Your task to perform on an android device: What's the weather going to be tomorrow? Image 0: 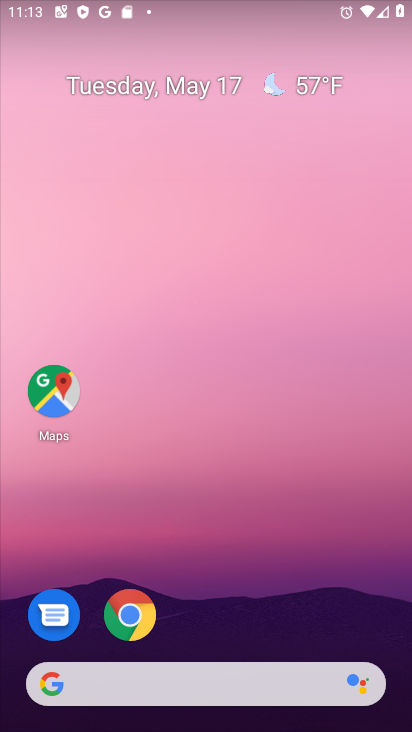
Step 0: drag from (290, 620) to (290, 78)
Your task to perform on an android device: What's the weather going to be tomorrow? Image 1: 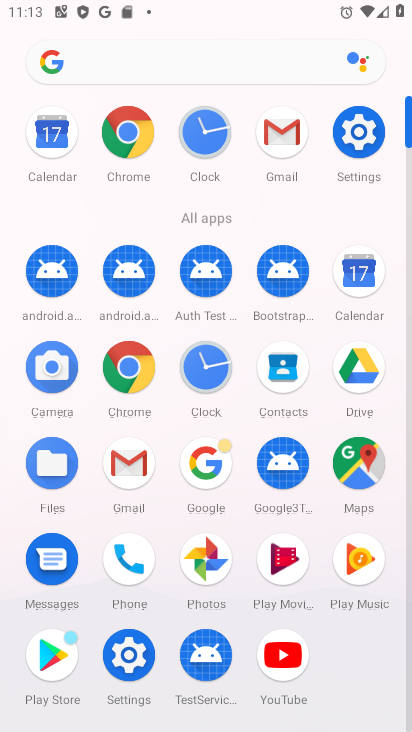
Step 1: press home button
Your task to perform on an android device: What's the weather going to be tomorrow? Image 2: 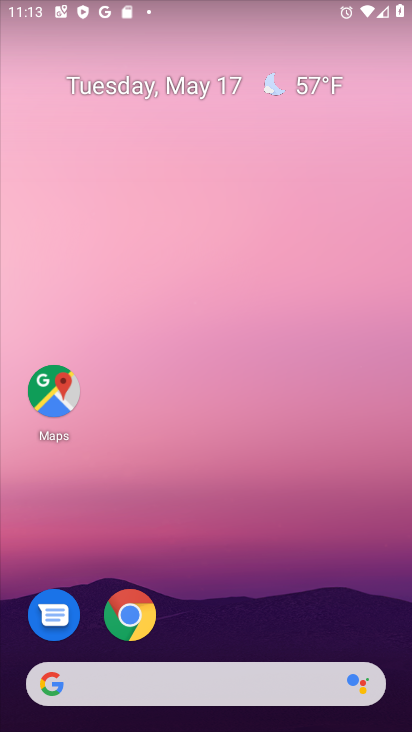
Step 2: click (313, 95)
Your task to perform on an android device: What's the weather going to be tomorrow? Image 3: 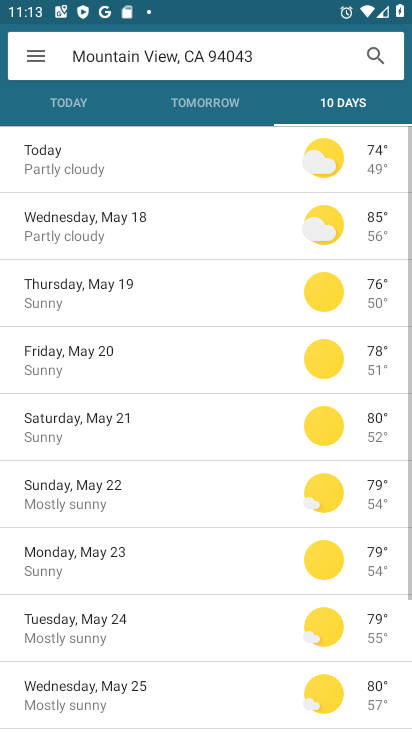
Step 3: click (209, 101)
Your task to perform on an android device: What's the weather going to be tomorrow? Image 4: 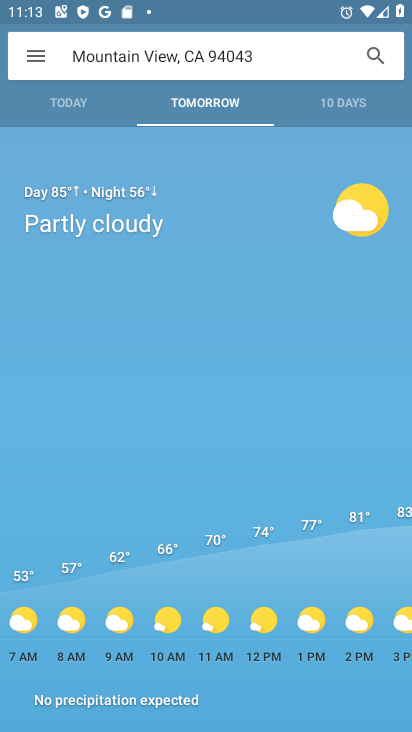
Step 4: task complete